Your task to perform on an android device: turn on showing notifications on the lock screen Image 0: 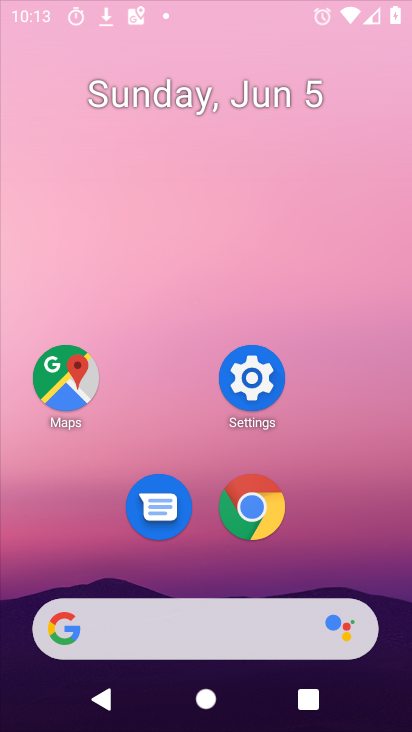
Step 0: drag from (245, 653) to (170, 127)
Your task to perform on an android device: turn on showing notifications on the lock screen Image 1: 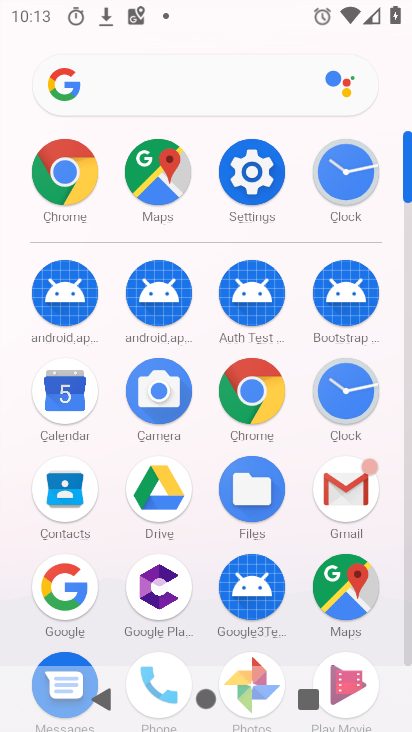
Step 1: click (230, 205)
Your task to perform on an android device: turn on showing notifications on the lock screen Image 2: 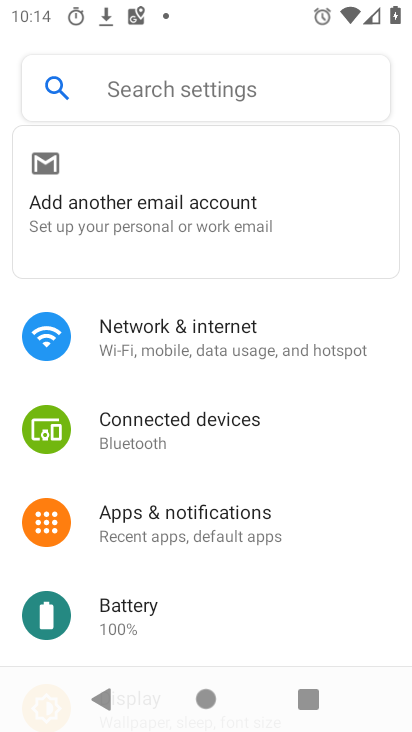
Step 2: click (154, 98)
Your task to perform on an android device: turn on showing notifications on the lock screen Image 3: 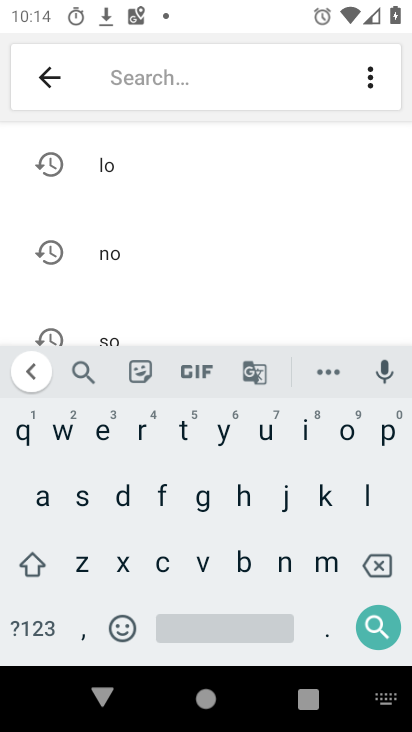
Step 3: click (120, 256)
Your task to perform on an android device: turn on showing notifications on the lock screen Image 4: 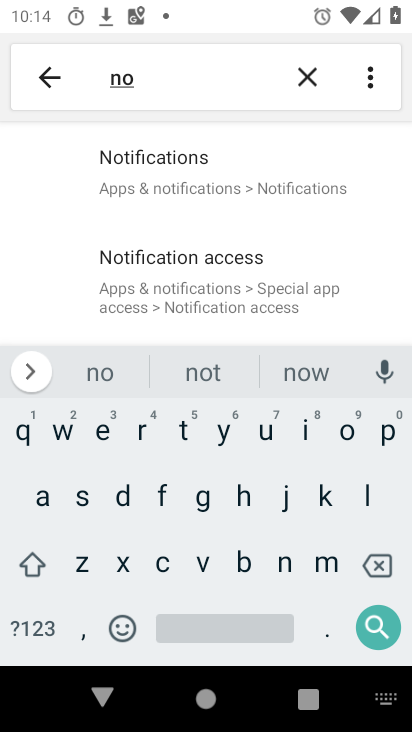
Step 4: click (144, 183)
Your task to perform on an android device: turn on showing notifications on the lock screen Image 5: 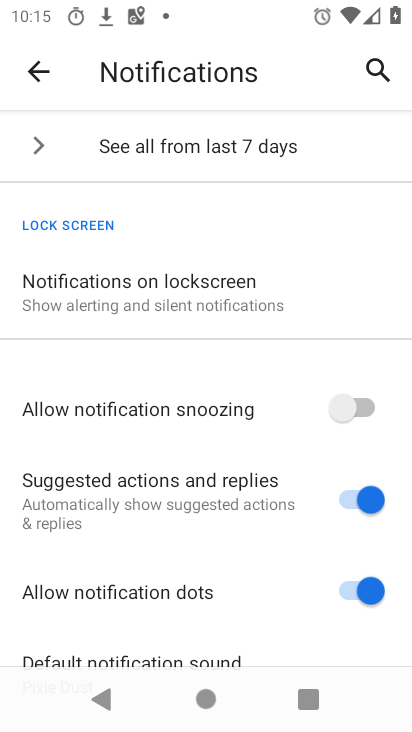
Step 5: click (110, 295)
Your task to perform on an android device: turn on showing notifications on the lock screen Image 6: 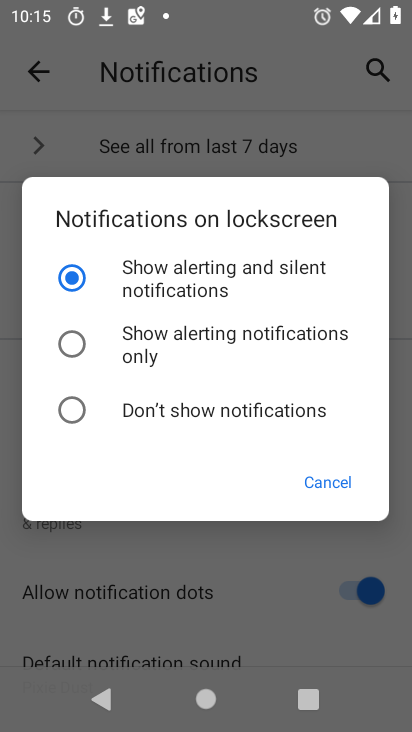
Step 6: task complete